Your task to perform on an android device: open device folders in google photos Image 0: 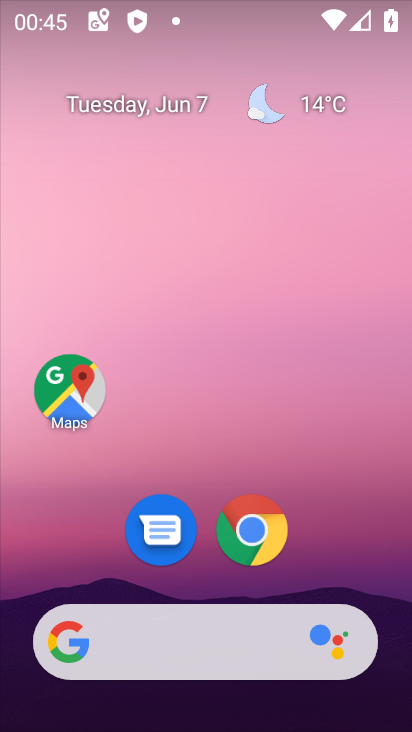
Step 0: drag from (319, 548) to (291, 266)
Your task to perform on an android device: open device folders in google photos Image 1: 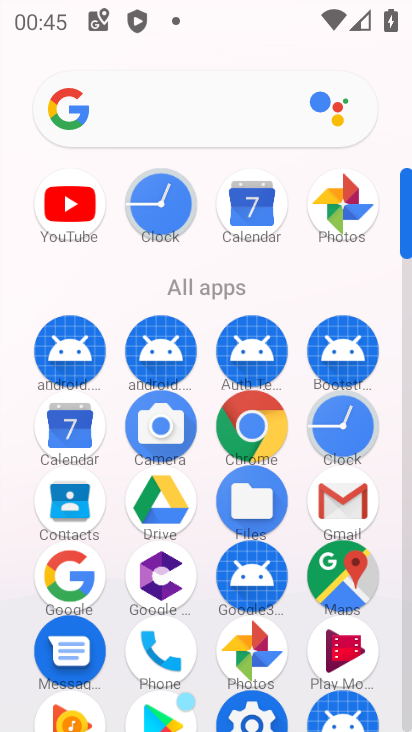
Step 1: click (265, 645)
Your task to perform on an android device: open device folders in google photos Image 2: 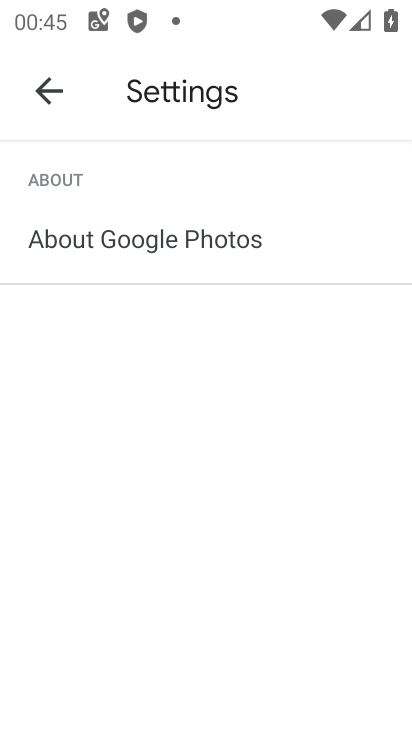
Step 2: click (47, 75)
Your task to perform on an android device: open device folders in google photos Image 3: 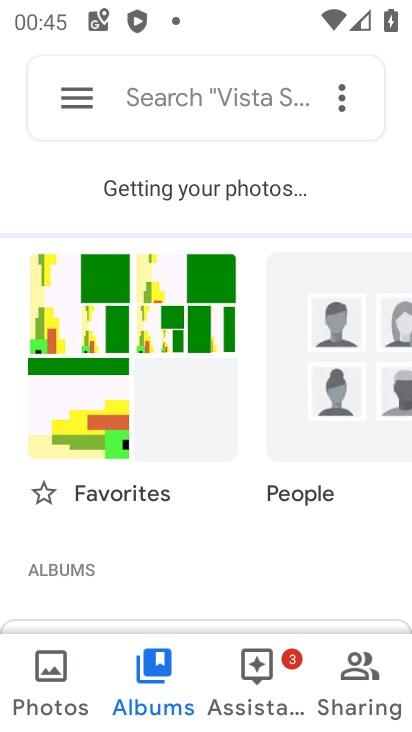
Step 3: task complete